Your task to perform on an android device: open chrome and create a bookmark for the current page Image 0: 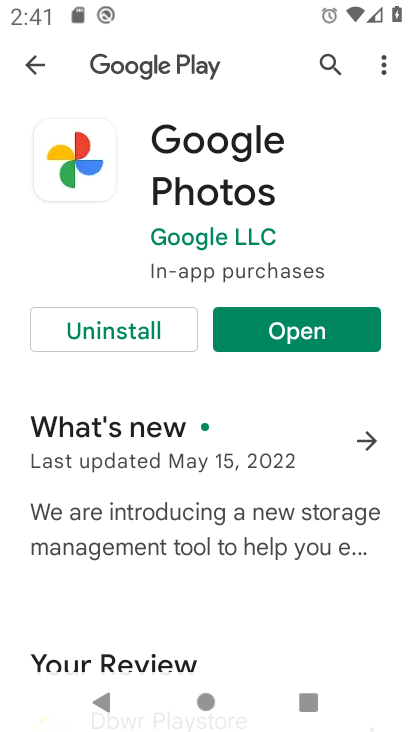
Step 0: press home button
Your task to perform on an android device: open chrome and create a bookmark for the current page Image 1: 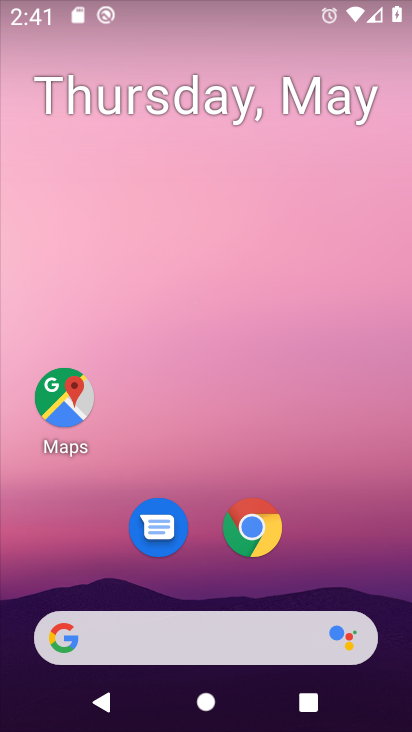
Step 1: click (248, 518)
Your task to perform on an android device: open chrome and create a bookmark for the current page Image 2: 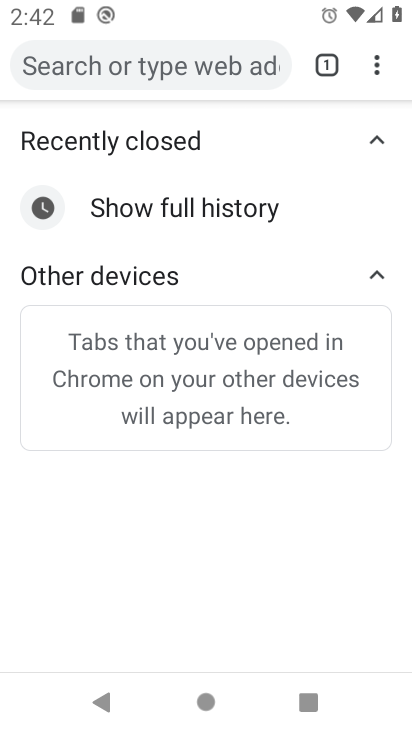
Step 2: drag from (367, 66) to (162, 42)
Your task to perform on an android device: open chrome and create a bookmark for the current page Image 3: 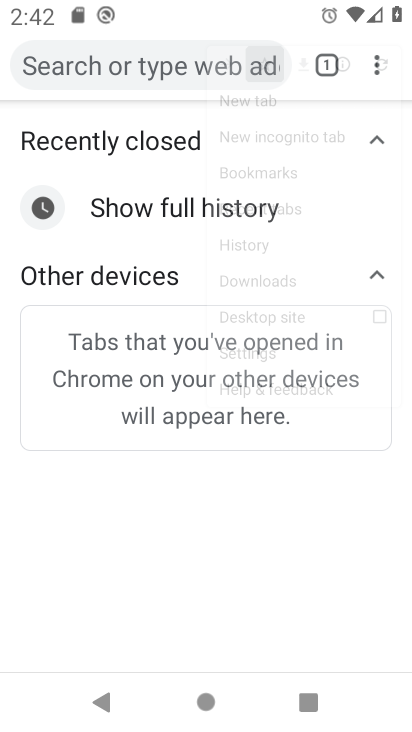
Step 3: click (163, 44)
Your task to perform on an android device: open chrome and create a bookmark for the current page Image 4: 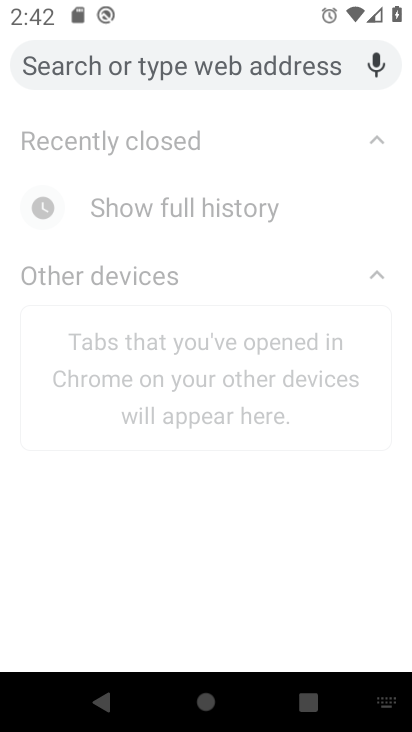
Step 4: task complete